Your task to perform on an android device: Open Reddit.com Image 0: 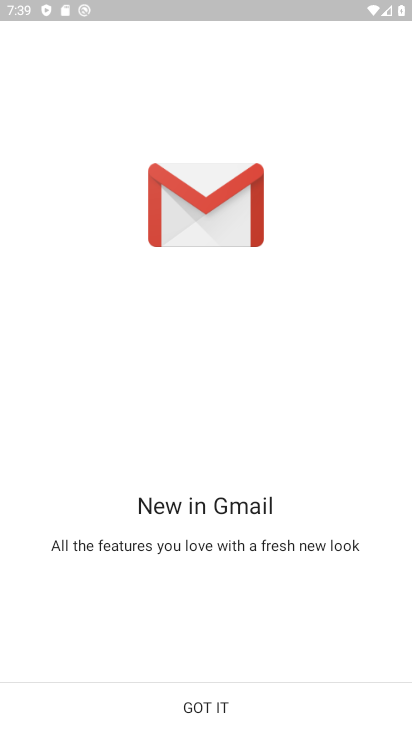
Step 0: press home button
Your task to perform on an android device: Open Reddit.com Image 1: 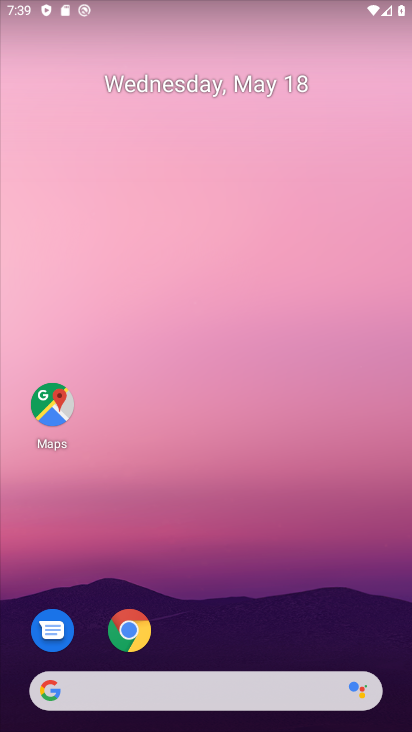
Step 1: click (137, 633)
Your task to perform on an android device: Open Reddit.com Image 2: 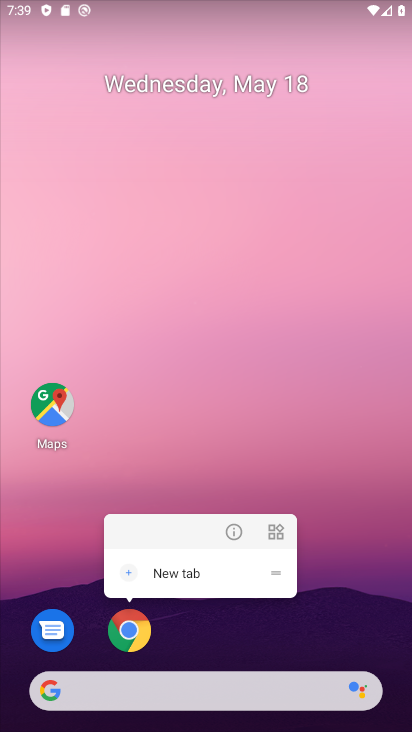
Step 2: click (136, 626)
Your task to perform on an android device: Open Reddit.com Image 3: 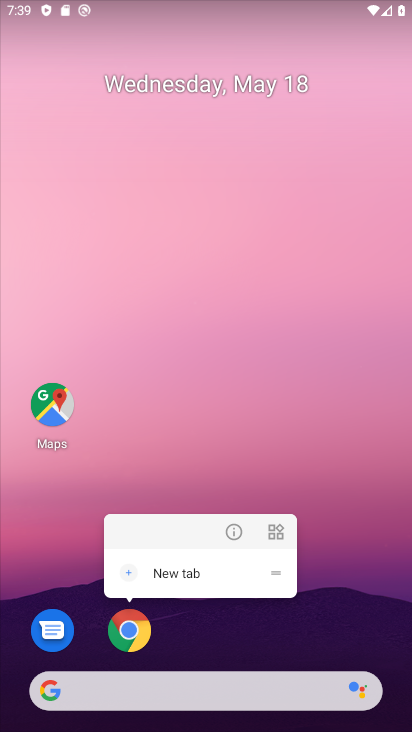
Step 3: click (140, 632)
Your task to perform on an android device: Open Reddit.com Image 4: 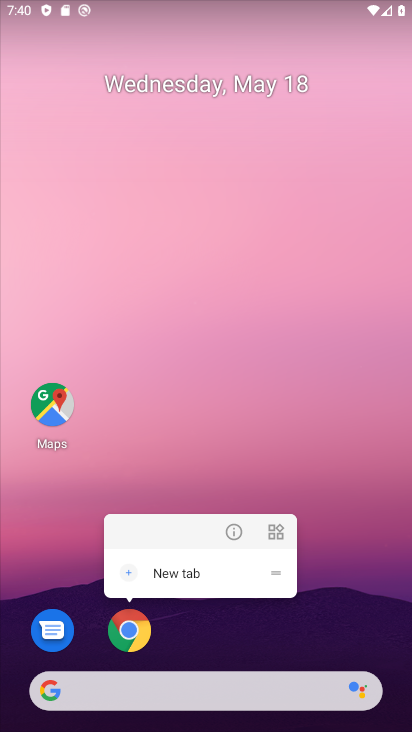
Step 4: click (126, 644)
Your task to perform on an android device: Open Reddit.com Image 5: 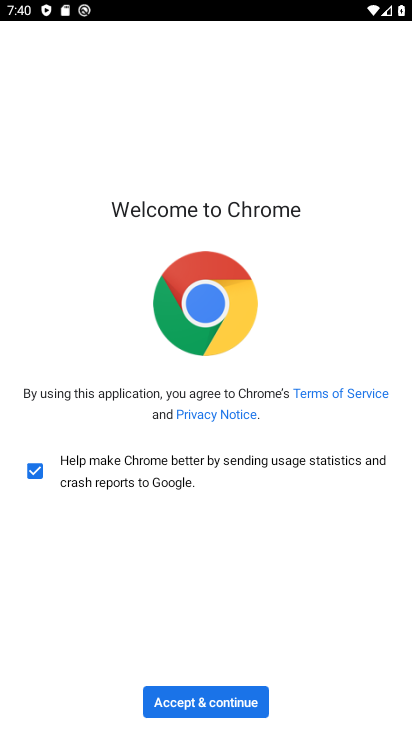
Step 5: click (242, 692)
Your task to perform on an android device: Open Reddit.com Image 6: 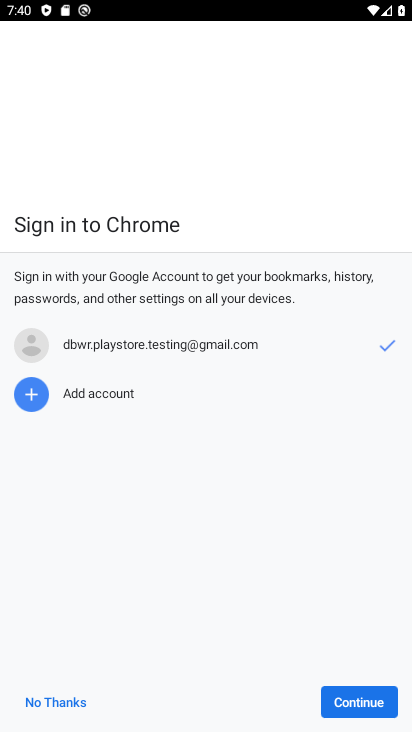
Step 6: click (362, 701)
Your task to perform on an android device: Open Reddit.com Image 7: 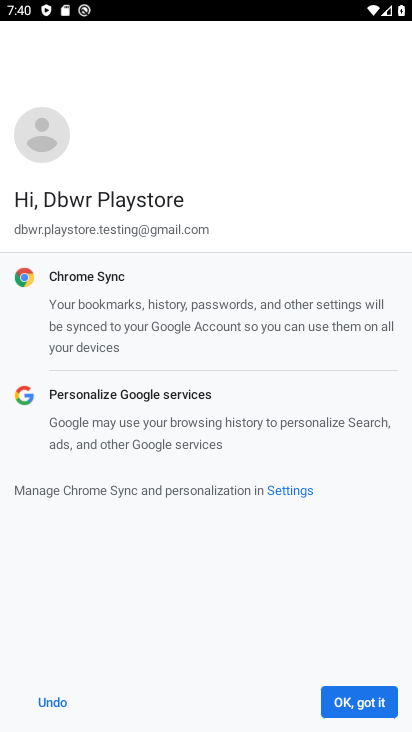
Step 7: click (364, 702)
Your task to perform on an android device: Open Reddit.com Image 8: 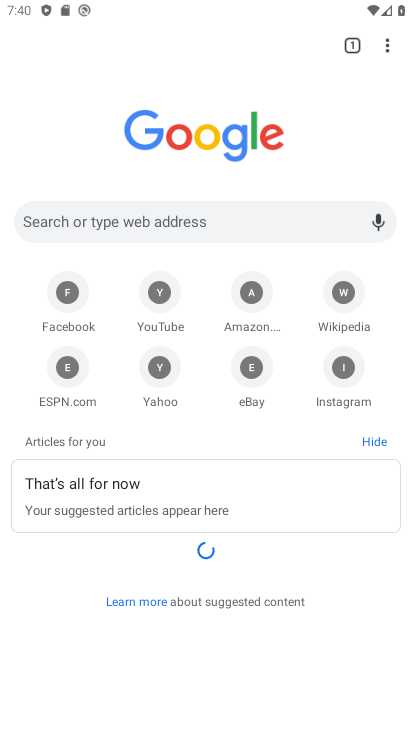
Step 8: drag from (385, 47) to (141, 40)
Your task to perform on an android device: Open Reddit.com Image 9: 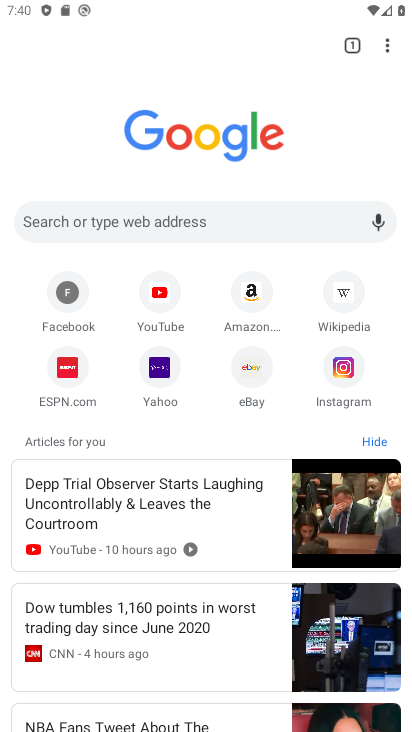
Step 9: click (165, 207)
Your task to perform on an android device: Open Reddit.com Image 10: 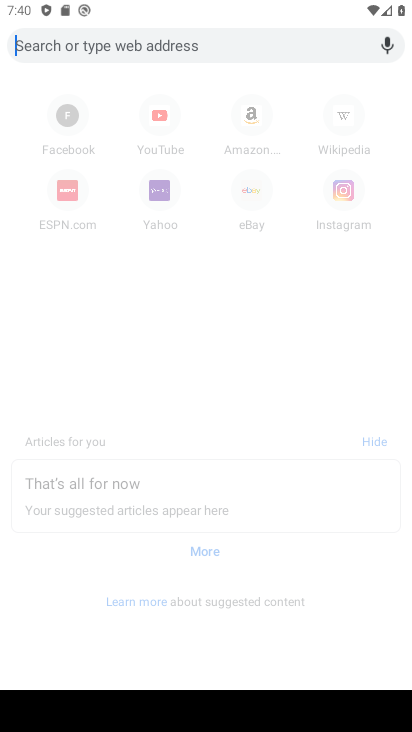
Step 10: type "reddit.com"
Your task to perform on an android device: Open Reddit.com Image 11: 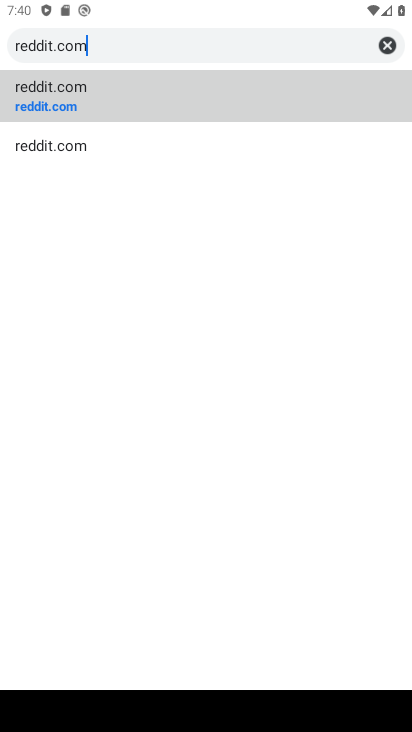
Step 11: click (71, 92)
Your task to perform on an android device: Open Reddit.com Image 12: 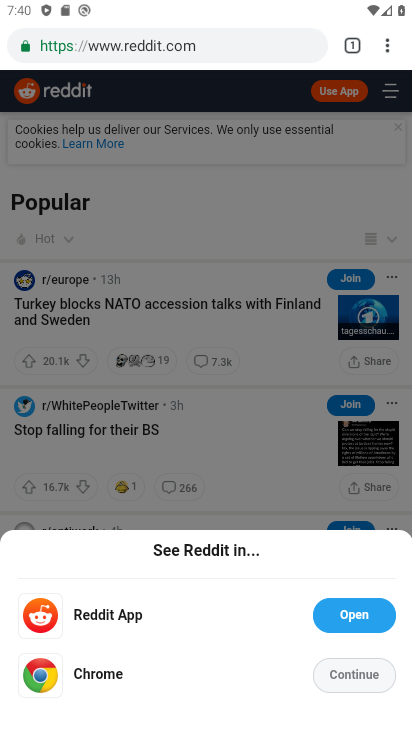
Step 12: task complete